Your task to perform on an android device: Show me popular games on the Play Store Image 0: 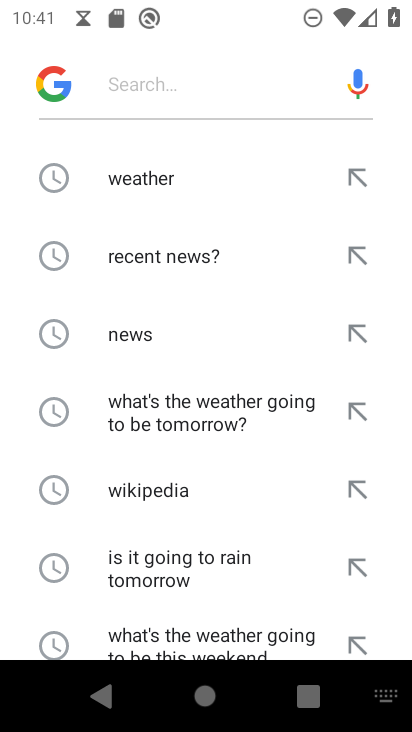
Step 0: press back button
Your task to perform on an android device: Show me popular games on the Play Store Image 1: 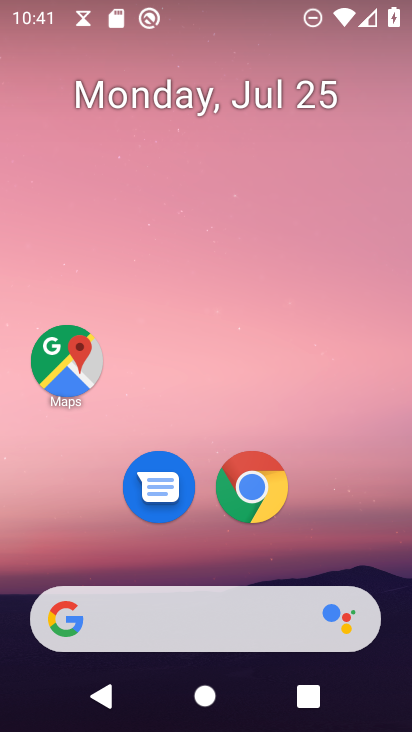
Step 1: drag from (211, 527) to (348, 17)
Your task to perform on an android device: Show me popular games on the Play Store Image 2: 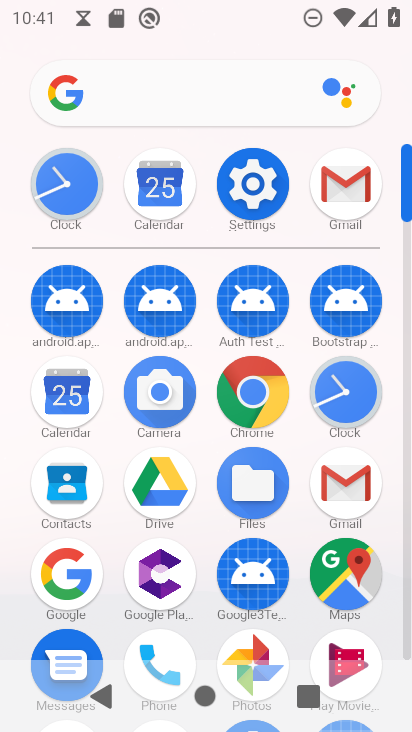
Step 2: drag from (181, 585) to (261, 56)
Your task to perform on an android device: Show me popular games on the Play Store Image 3: 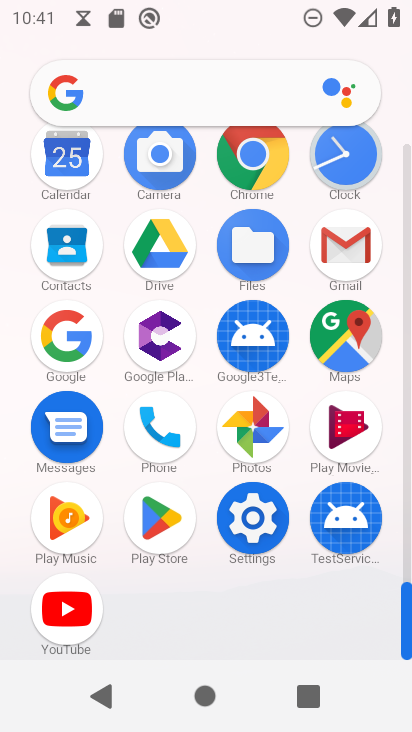
Step 3: click (155, 527)
Your task to perform on an android device: Show me popular games on the Play Store Image 4: 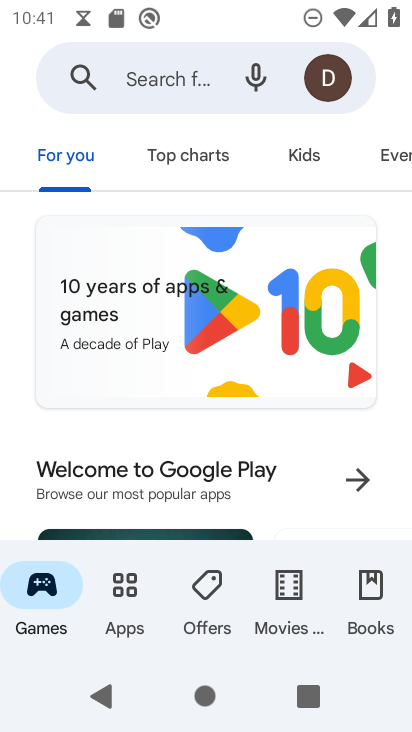
Step 4: drag from (214, 511) to (276, 24)
Your task to perform on an android device: Show me popular games on the Play Store Image 5: 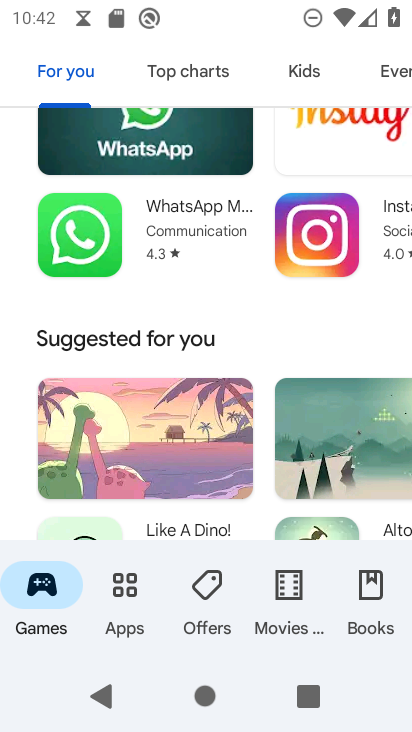
Step 5: drag from (187, 485) to (297, 12)
Your task to perform on an android device: Show me popular games on the Play Store Image 6: 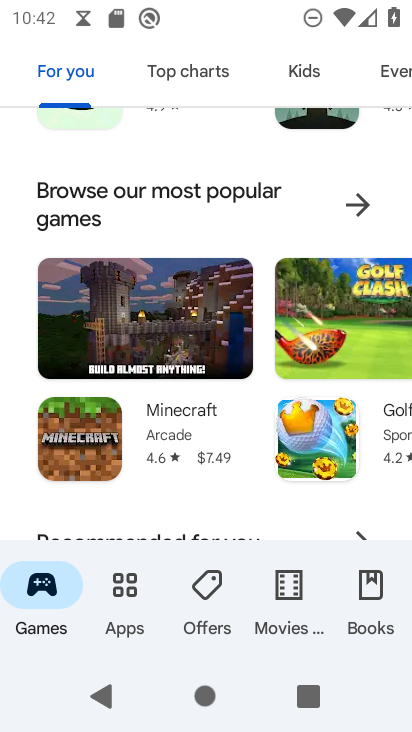
Step 6: click (363, 204)
Your task to perform on an android device: Show me popular games on the Play Store Image 7: 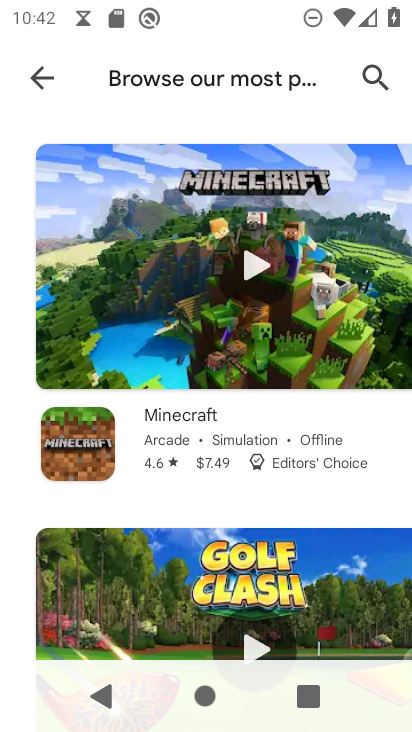
Step 7: task complete